Your task to perform on an android device: What's on my calendar today? Image 0: 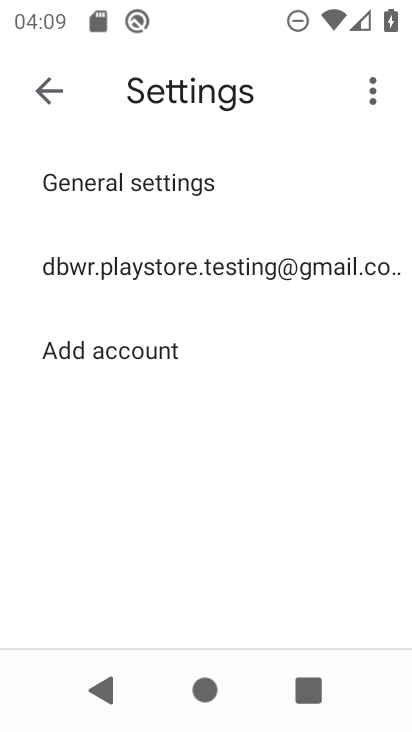
Step 0: press home button
Your task to perform on an android device: What's on my calendar today? Image 1: 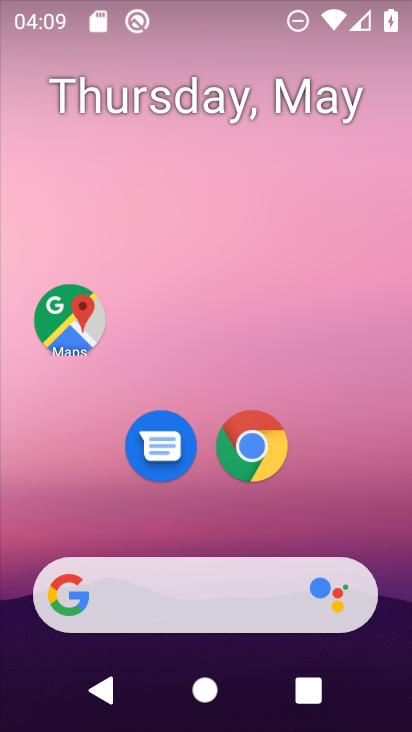
Step 1: drag from (324, 533) to (228, 12)
Your task to perform on an android device: What's on my calendar today? Image 2: 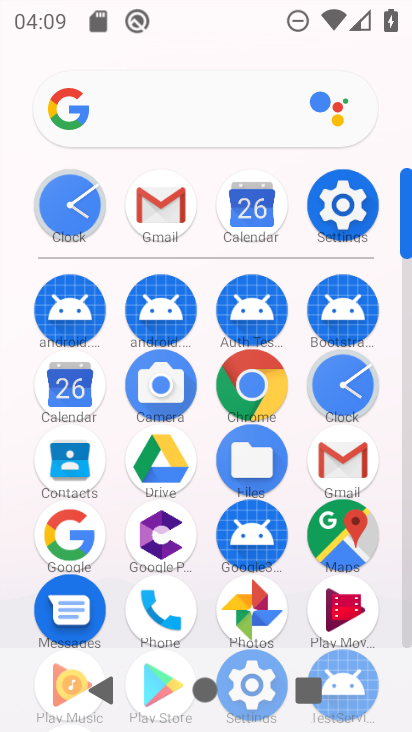
Step 2: click (242, 209)
Your task to perform on an android device: What's on my calendar today? Image 3: 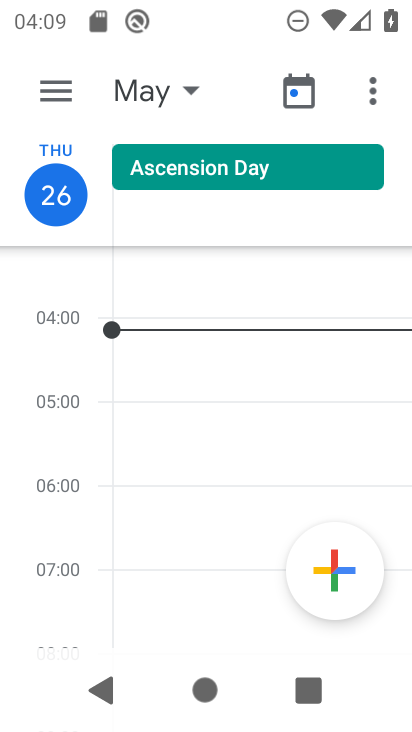
Step 3: task complete